Your task to perform on an android device: add a contact in the contacts app Image 0: 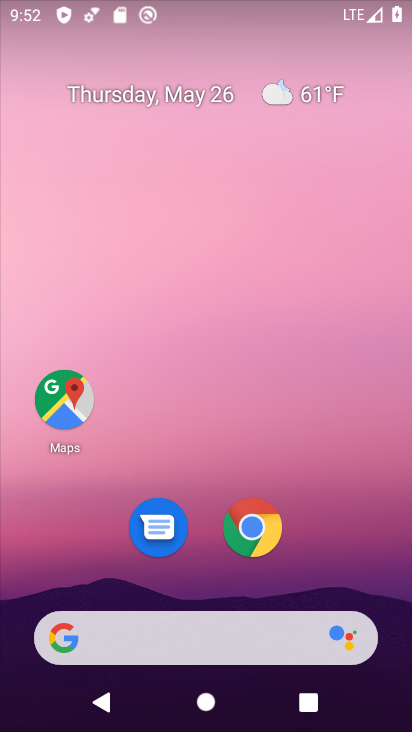
Step 0: drag from (184, 502) to (237, 92)
Your task to perform on an android device: add a contact in the contacts app Image 1: 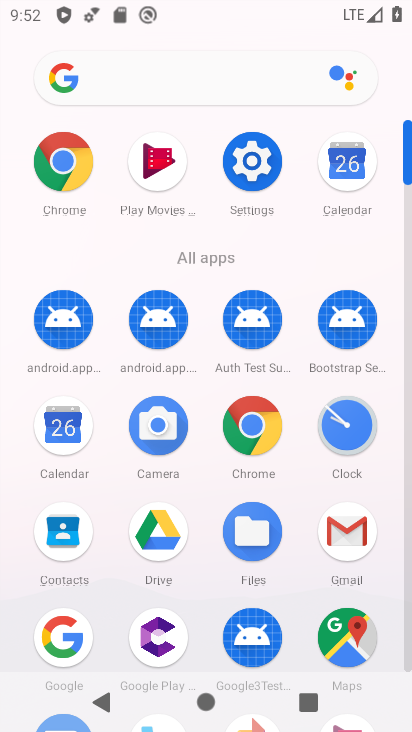
Step 1: click (60, 536)
Your task to perform on an android device: add a contact in the contacts app Image 2: 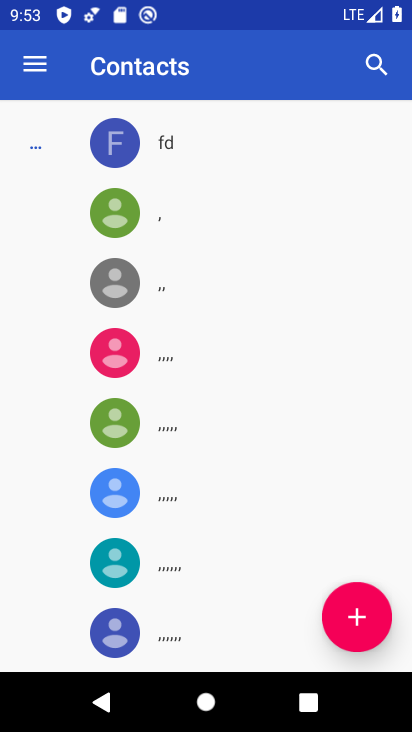
Step 2: click (346, 629)
Your task to perform on an android device: add a contact in the contacts app Image 3: 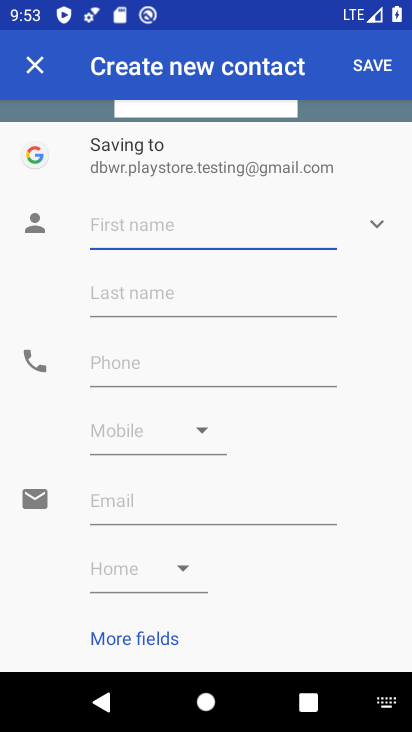
Step 3: type "bgbd"
Your task to perform on an android device: add a contact in the contacts app Image 4: 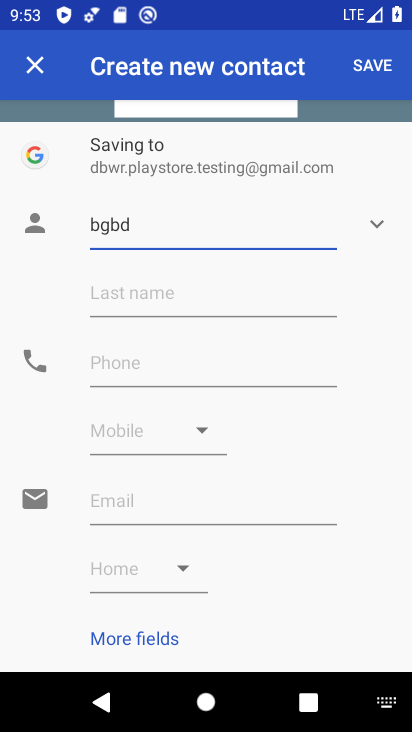
Step 4: click (113, 368)
Your task to perform on an android device: add a contact in the contacts app Image 5: 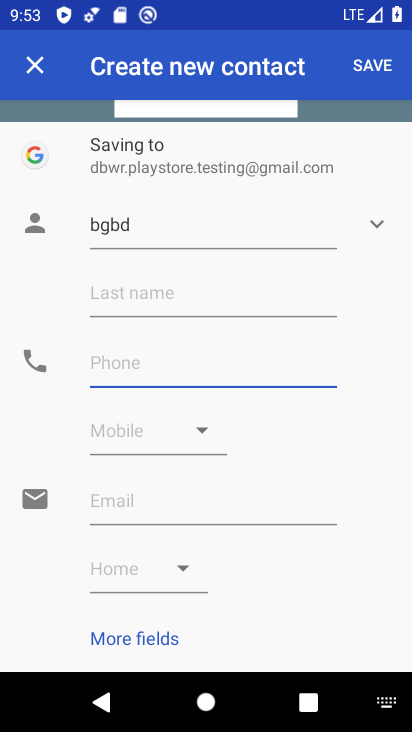
Step 5: type "6566"
Your task to perform on an android device: add a contact in the contacts app Image 6: 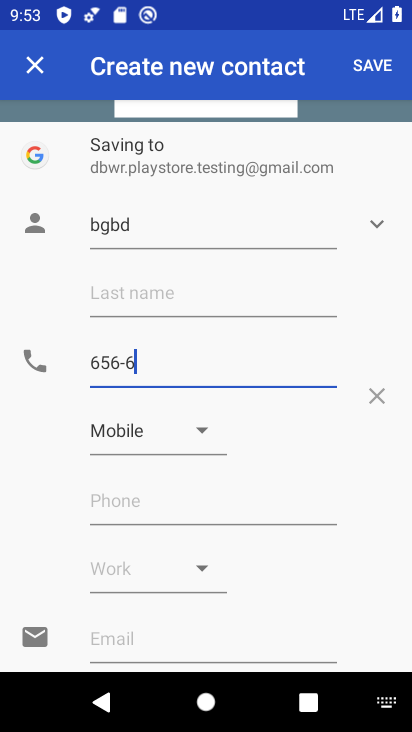
Step 6: click (375, 55)
Your task to perform on an android device: add a contact in the contacts app Image 7: 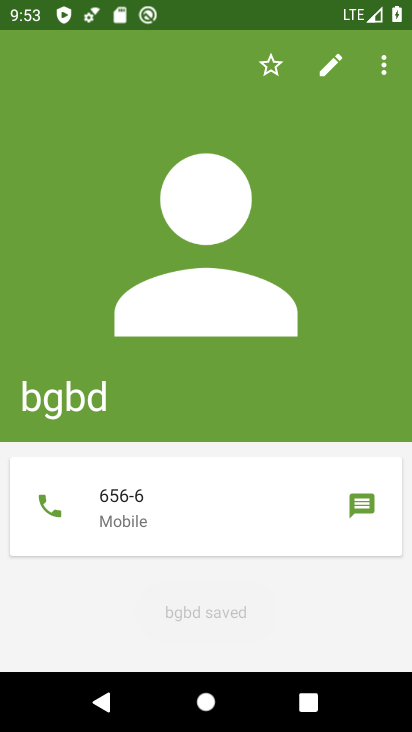
Step 7: task complete